Your task to perform on an android device: open the mobile data screen to see how much data has been used Image 0: 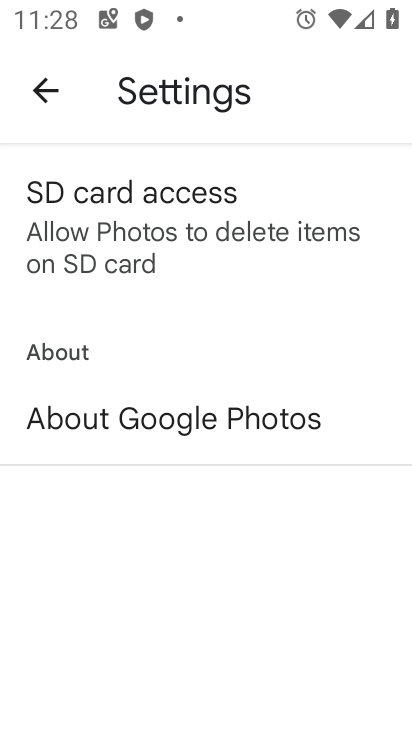
Step 0: press home button
Your task to perform on an android device: open the mobile data screen to see how much data has been used Image 1: 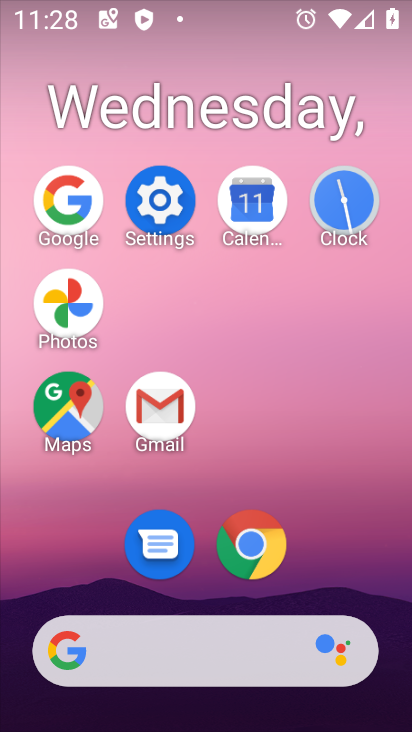
Step 1: click (149, 187)
Your task to perform on an android device: open the mobile data screen to see how much data has been used Image 2: 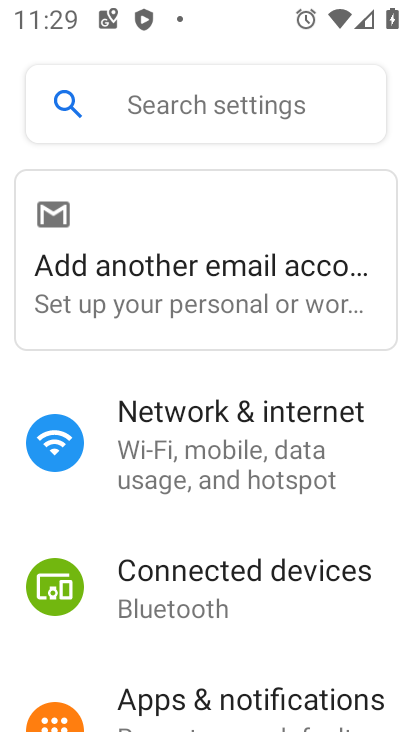
Step 2: click (204, 392)
Your task to perform on an android device: open the mobile data screen to see how much data has been used Image 3: 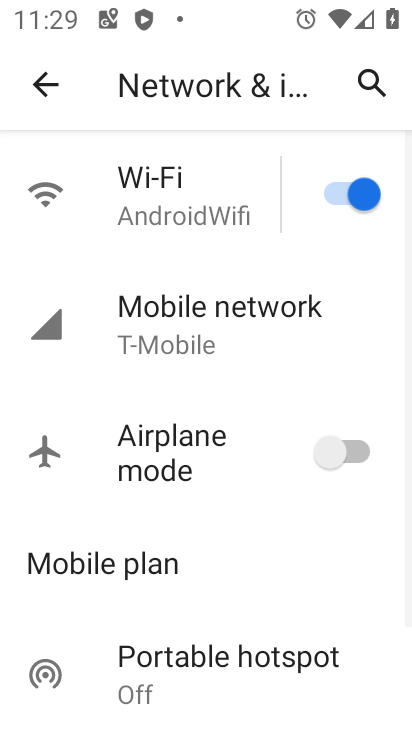
Step 3: click (238, 341)
Your task to perform on an android device: open the mobile data screen to see how much data has been used Image 4: 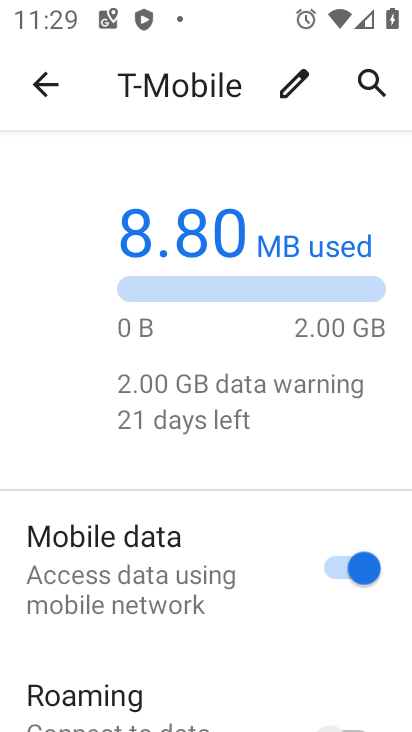
Step 4: task complete